Your task to perform on an android device: Go to Maps Image 0: 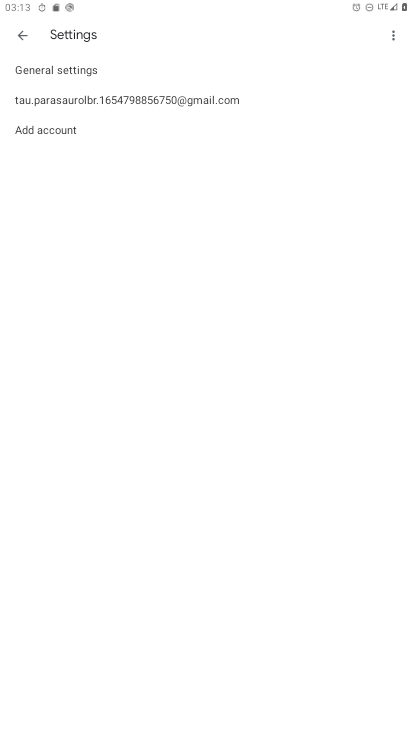
Step 0: press home button
Your task to perform on an android device: Go to Maps Image 1: 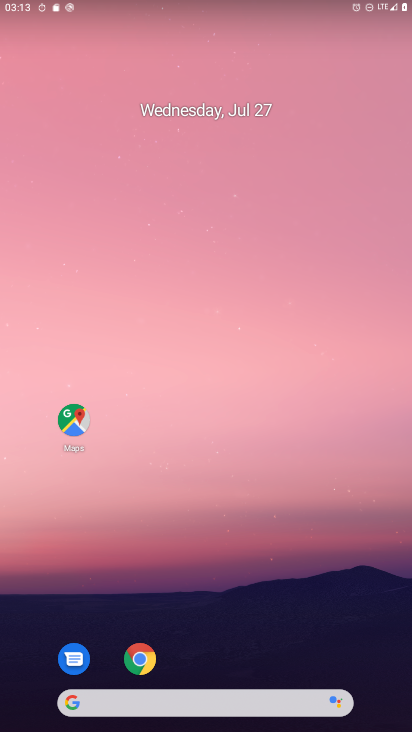
Step 1: click (76, 419)
Your task to perform on an android device: Go to Maps Image 2: 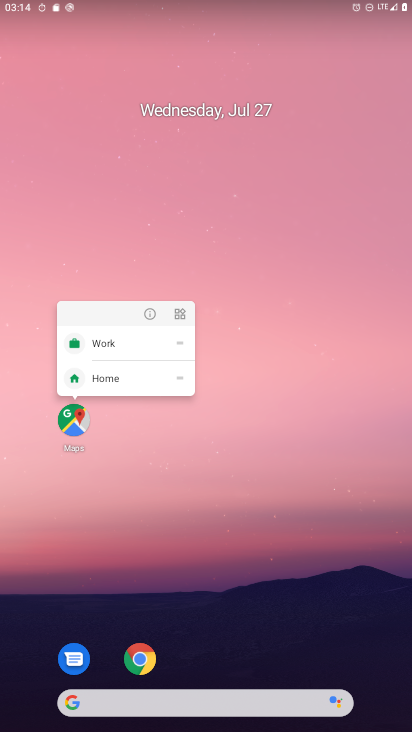
Step 2: click (71, 426)
Your task to perform on an android device: Go to Maps Image 3: 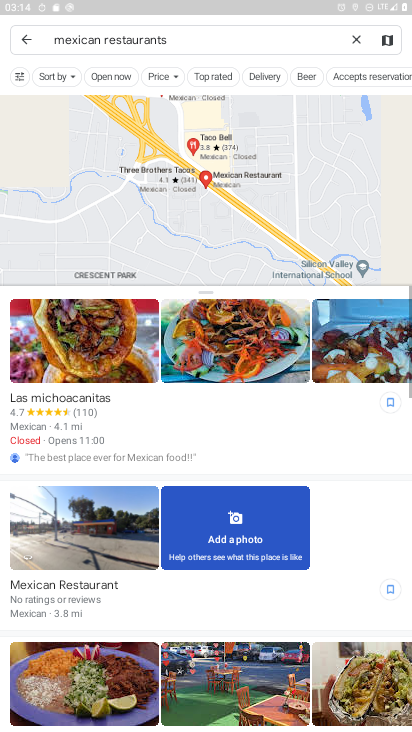
Step 3: task complete